Your task to perform on an android device: turn off sleep mode Image 0: 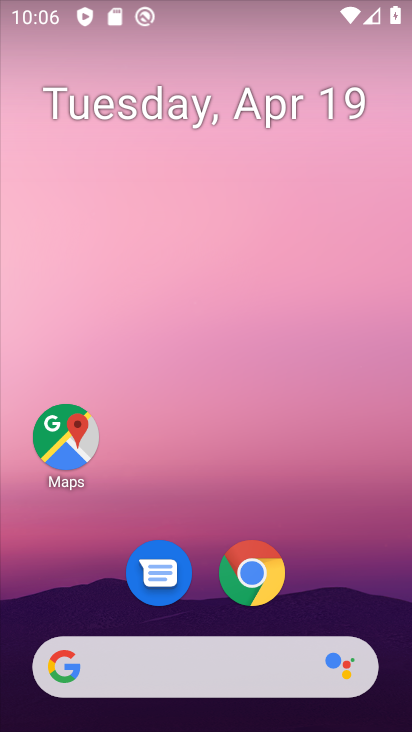
Step 0: drag from (366, 523) to (371, 124)
Your task to perform on an android device: turn off sleep mode Image 1: 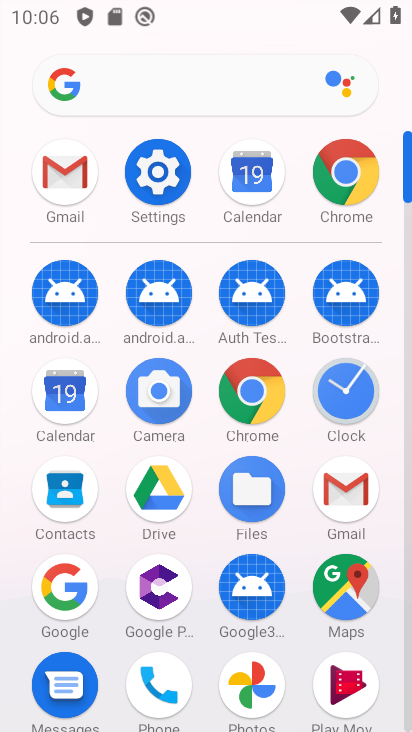
Step 1: click (156, 188)
Your task to perform on an android device: turn off sleep mode Image 2: 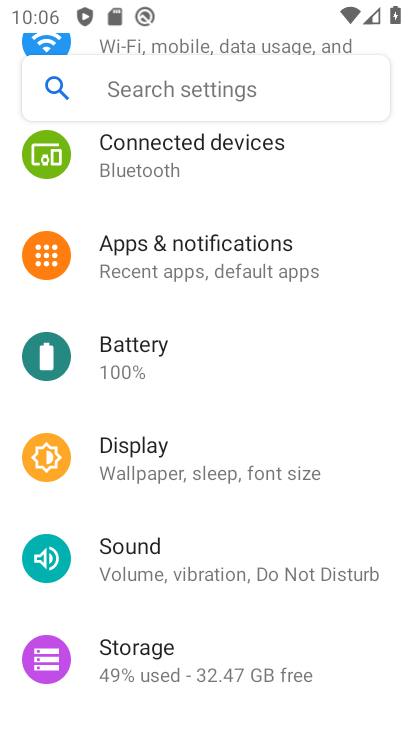
Step 2: drag from (357, 617) to (368, 165)
Your task to perform on an android device: turn off sleep mode Image 3: 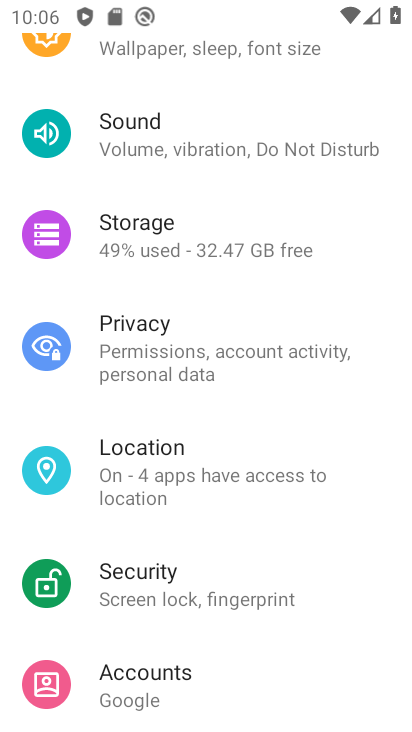
Step 3: drag from (352, 615) to (371, 167)
Your task to perform on an android device: turn off sleep mode Image 4: 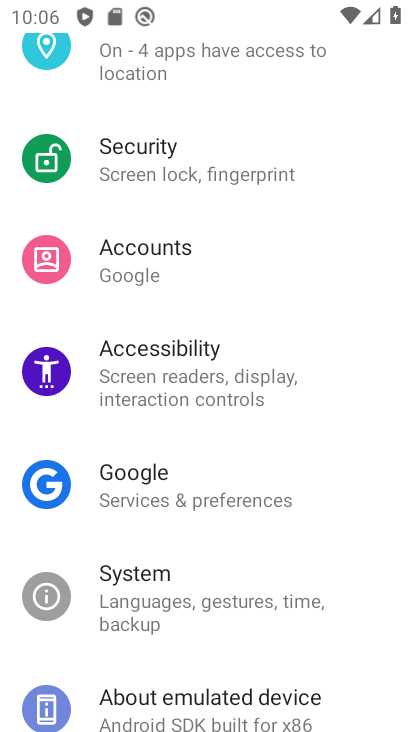
Step 4: drag from (370, 204) to (362, 515)
Your task to perform on an android device: turn off sleep mode Image 5: 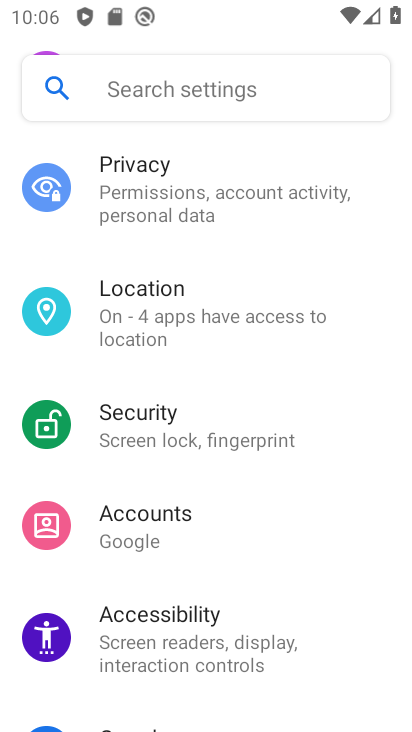
Step 5: drag from (362, 261) to (357, 525)
Your task to perform on an android device: turn off sleep mode Image 6: 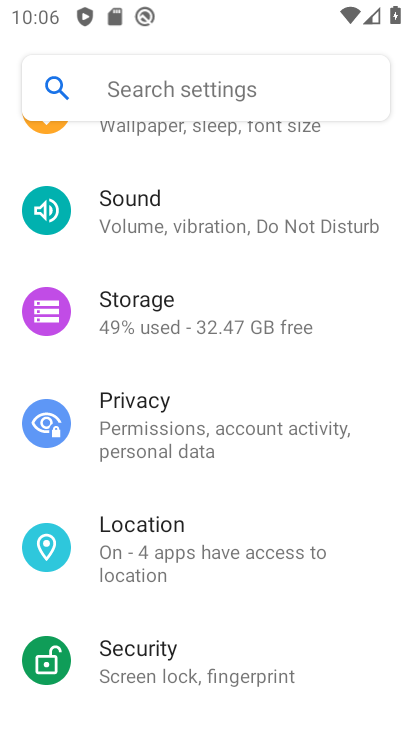
Step 6: drag from (366, 272) to (364, 548)
Your task to perform on an android device: turn off sleep mode Image 7: 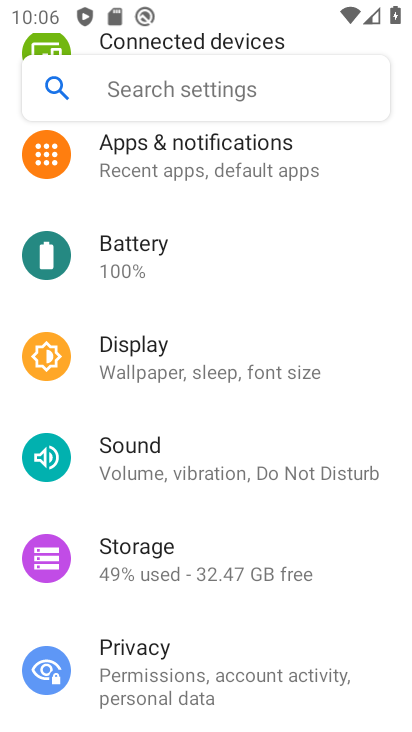
Step 7: click (172, 371)
Your task to perform on an android device: turn off sleep mode Image 8: 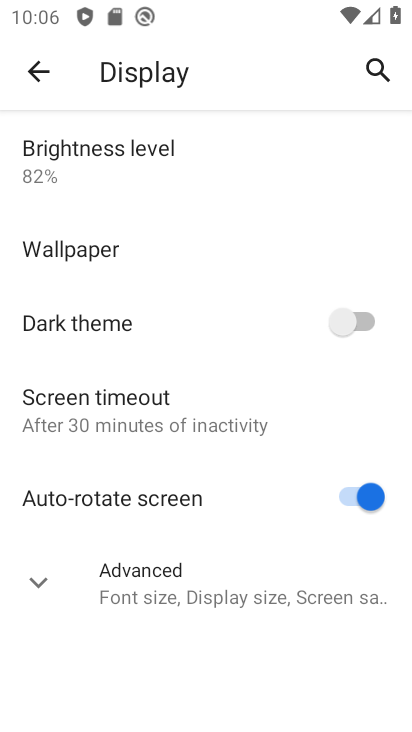
Step 8: click (192, 582)
Your task to perform on an android device: turn off sleep mode Image 9: 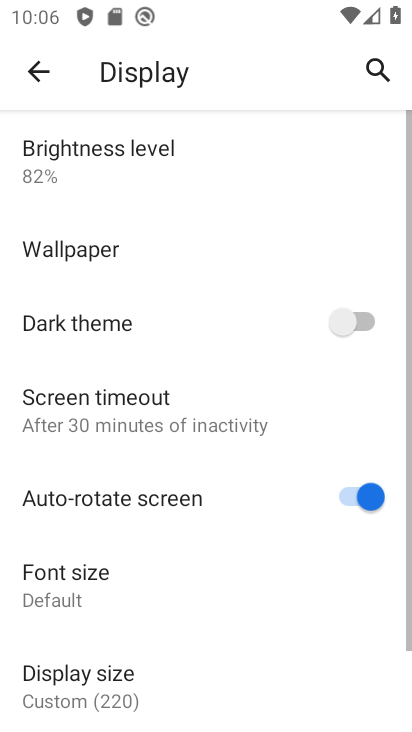
Step 9: task complete